Your task to perform on an android device: Open the calendar app, open the side menu, and click the "Day" option Image 0: 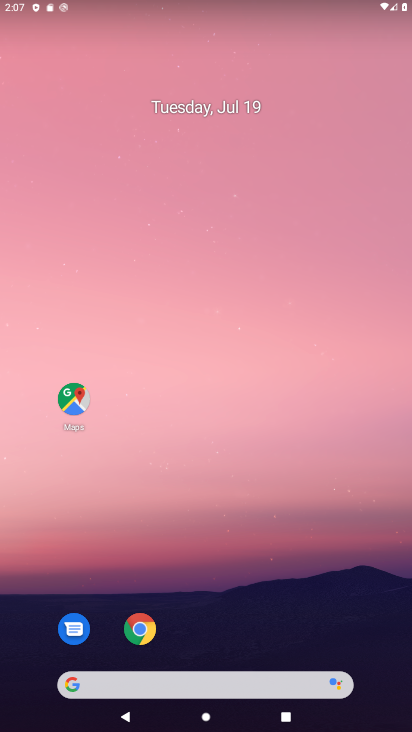
Step 0: drag from (259, 652) to (299, 170)
Your task to perform on an android device: Open the calendar app, open the side menu, and click the "Day" option Image 1: 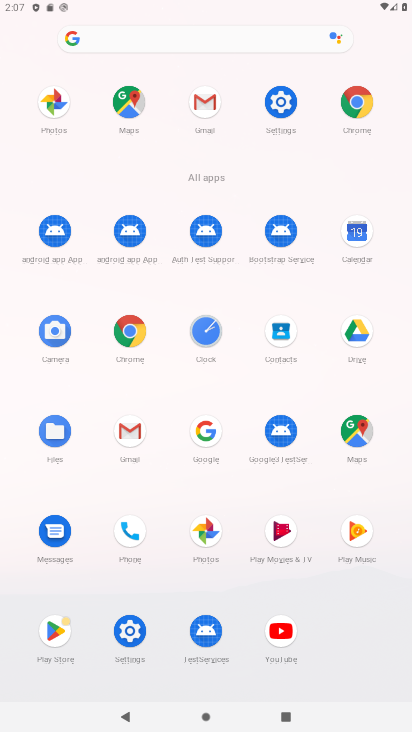
Step 1: click (356, 247)
Your task to perform on an android device: Open the calendar app, open the side menu, and click the "Day" option Image 2: 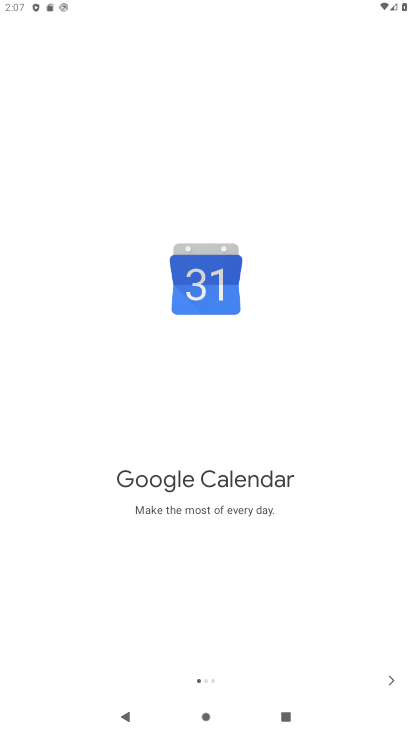
Step 2: click (393, 681)
Your task to perform on an android device: Open the calendar app, open the side menu, and click the "Day" option Image 3: 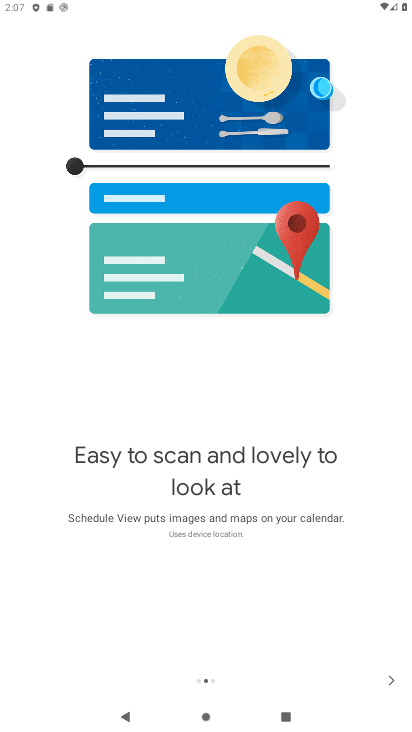
Step 3: click (393, 681)
Your task to perform on an android device: Open the calendar app, open the side menu, and click the "Day" option Image 4: 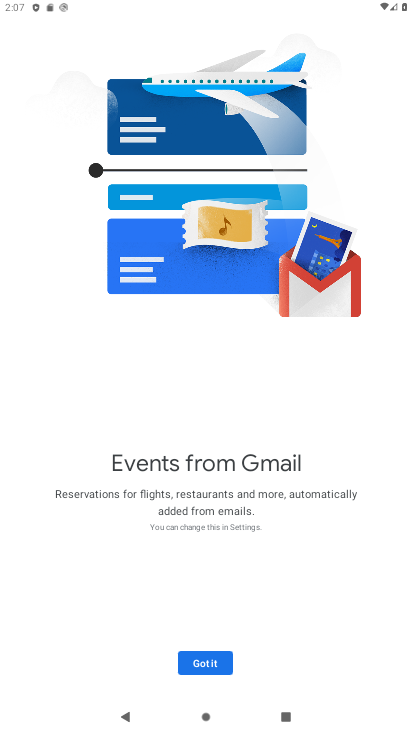
Step 4: click (189, 663)
Your task to perform on an android device: Open the calendar app, open the side menu, and click the "Day" option Image 5: 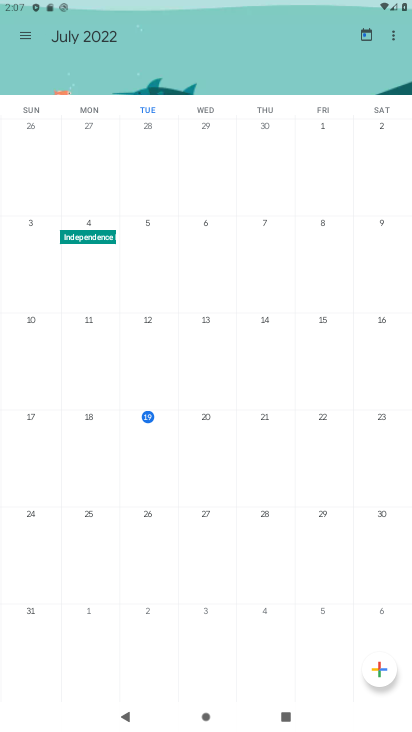
Step 5: click (34, 33)
Your task to perform on an android device: Open the calendar app, open the side menu, and click the "Day" option Image 6: 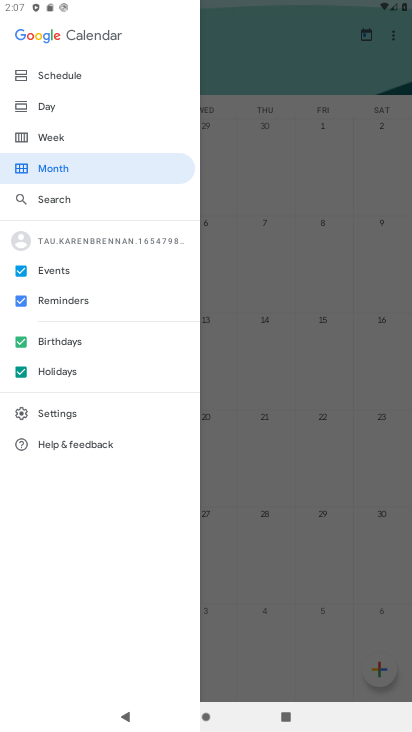
Step 6: click (82, 102)
Your task to perform on an android device: Open the calendar app, open the side menu, and click the "Day" option Image 7: 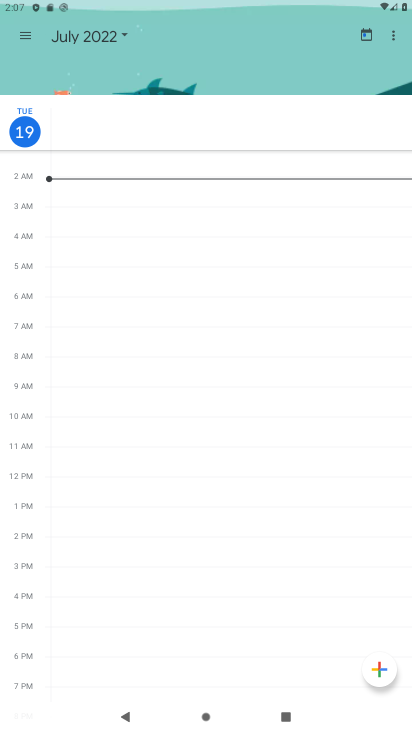
Step 7: task complete